Your task to perform on an android device: Clear the cart on walmart. Image 0: 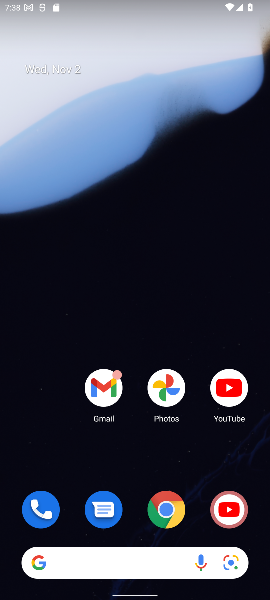
Step 0: click (107, 554)
Your task to perform on an android device: Clear the cart on walmart. Image 1: 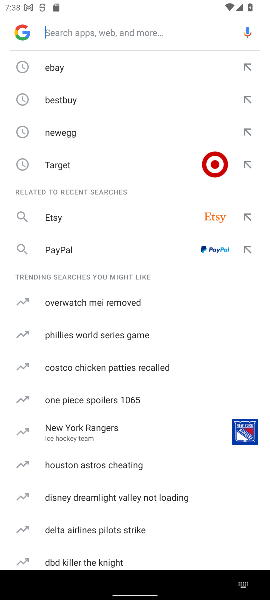
Step 1: type "walmart"
Your task to perform on an android device: Clear the cart on walmart. Image 2: 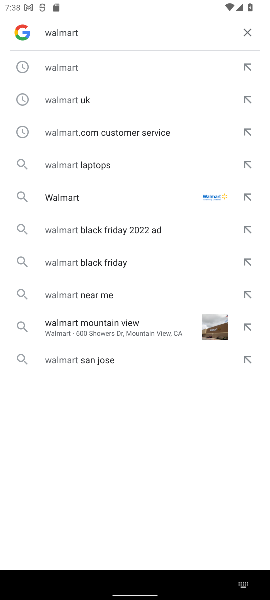
Step 2: click (71, 66)
Your task to perform on an android device: Clear the cart on walmart. Image 3: 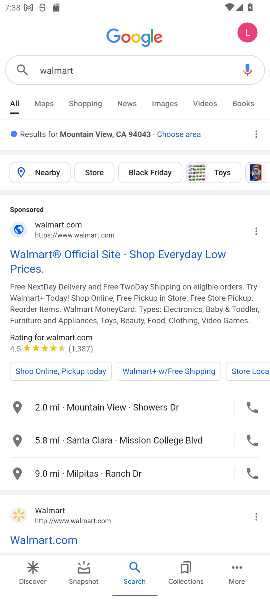
Step 3: click (53, 533)
Your task to perform on an android device: Clear the cart on walmart. Image 4: 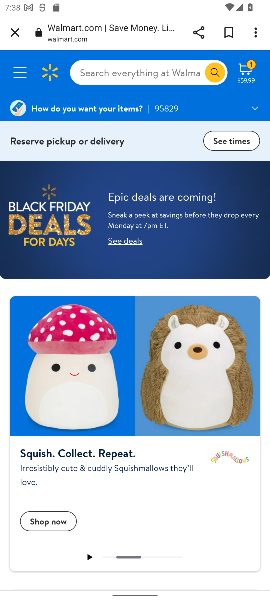
Step 4: click (247, 67)
Your task to perform on an android device: Clear the cart on walmart. Image 5: 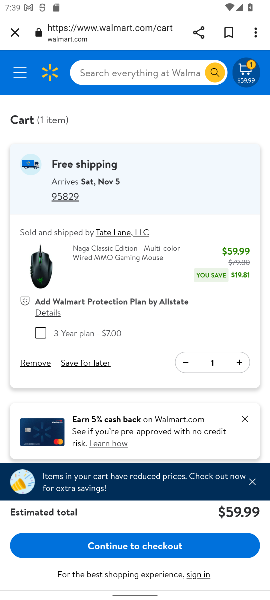
Step 5: click (28, 364)
Your task to perform on an android device: Clear the cart on walmart. Image 6: 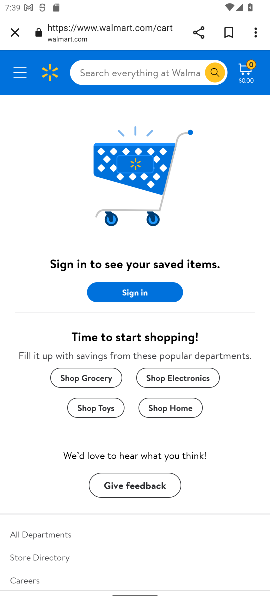
Step 6: task complete